Your task to perform on an android device: Search for Italian restaurants on Maps Image 0: 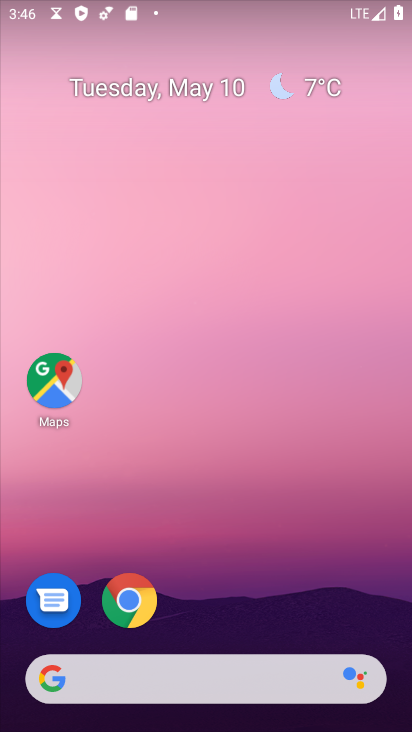
Step 0: click (46, 377)
Your task to perform on an android device: Search for Italian restaurants on Maps Image 1: 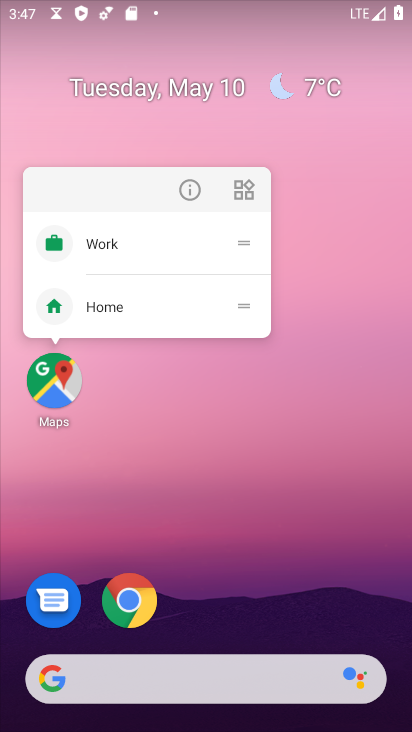
Step 1: click (64, 389)
Your task to perform on an android device: Search for Italian restaurants on Maps Image 2: 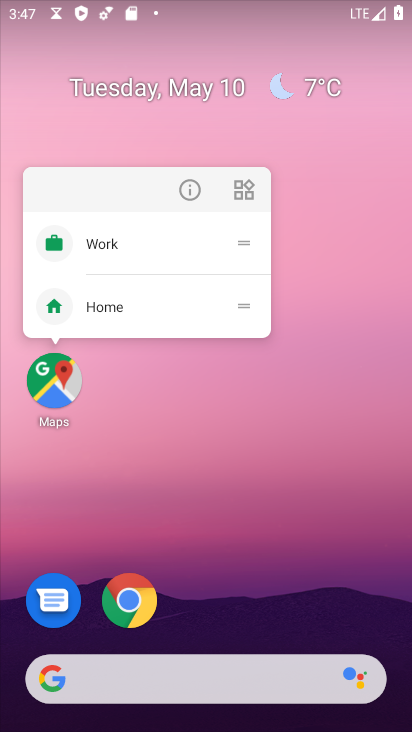
Step 2: click (64, 389)
Your task to perform on an android device: Search for Italian restaurants on Maps Image 3: 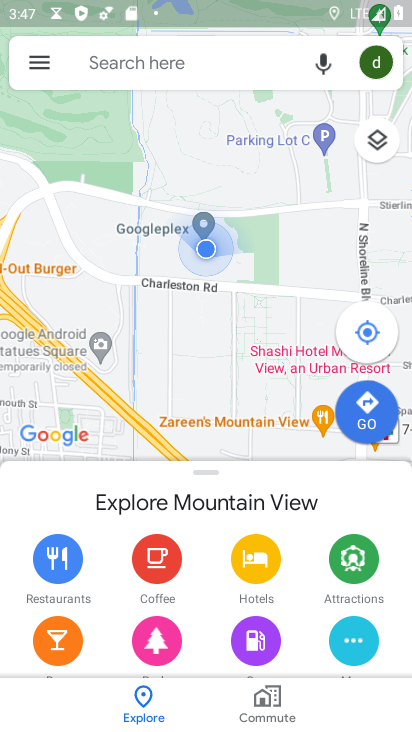
Step 3: click (119, 58)
Your task to perform on an android device: Search for Italian restaurants on Maps Image 4: 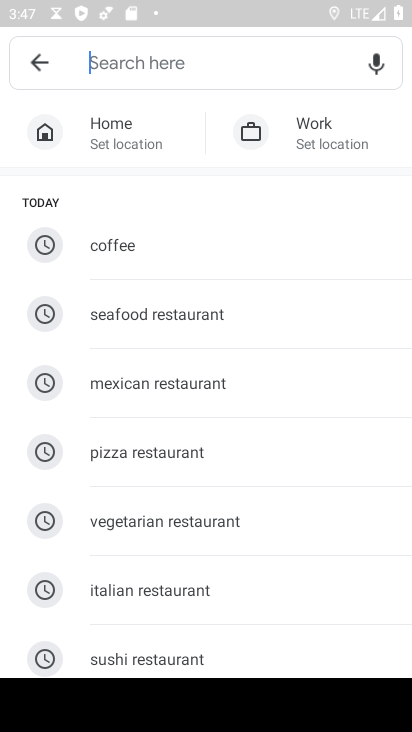
Step 4: click (162, 585)
Your task to perform on an android device: Search for Italian restaurants on Maps Image 5: 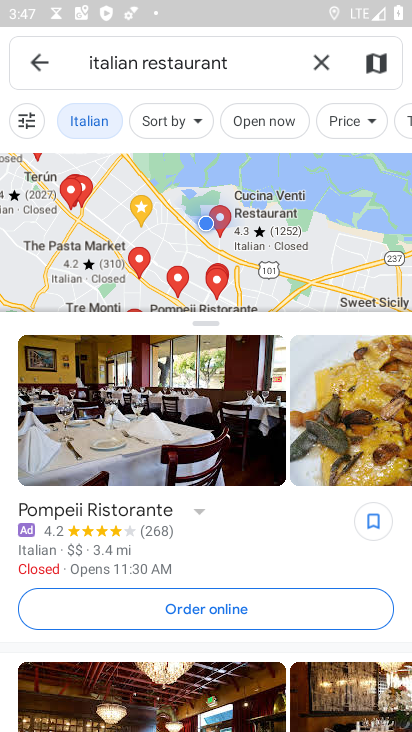
Step 5: task complete